Your task to perform on an android device: turn on data saver in the chrome app Image 0: 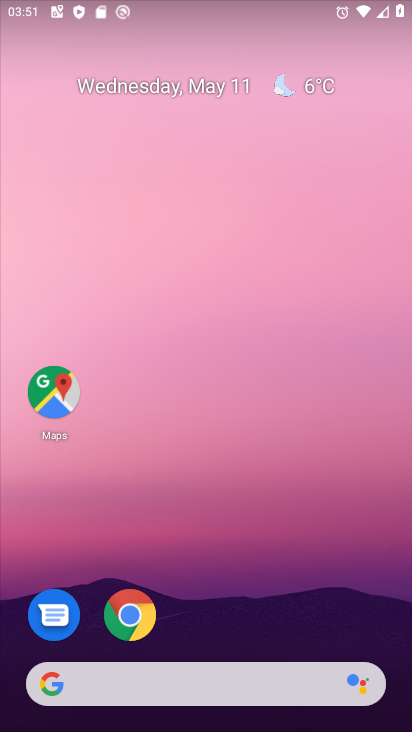
Step 0: click (122, 614)
Your task to perform on an android device: turn on data saver in the chrome app Image 1: 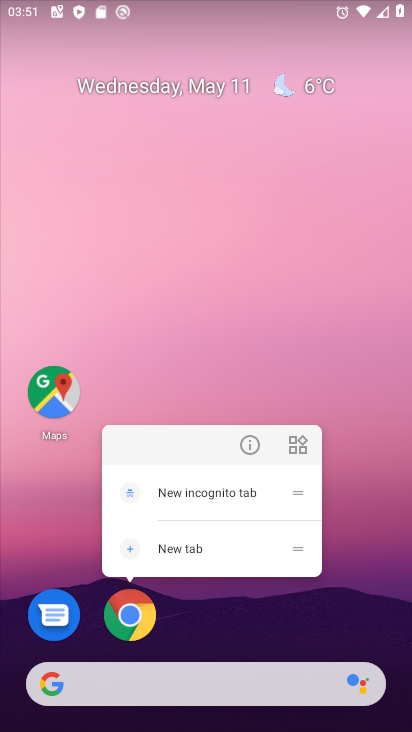
Step 1: click (134, 617)
Your task to perform on an android device: turn on data saver in the chrome app Image 2: 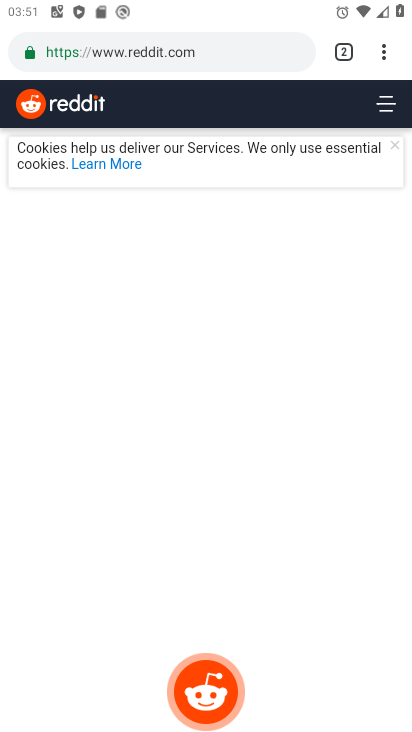
Step 2: drag from (387, 42) to (189, 627)
Your task to perform on an android device: turn on data saver in the chrome app Image 3: 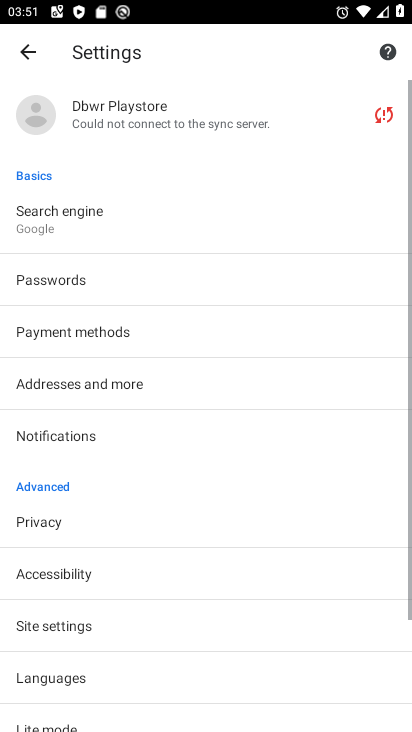
Step 3: drag from (101, 642) to (181, 245)
Your task to perform on an android device: turn on data saver in the chrome app Image 4: 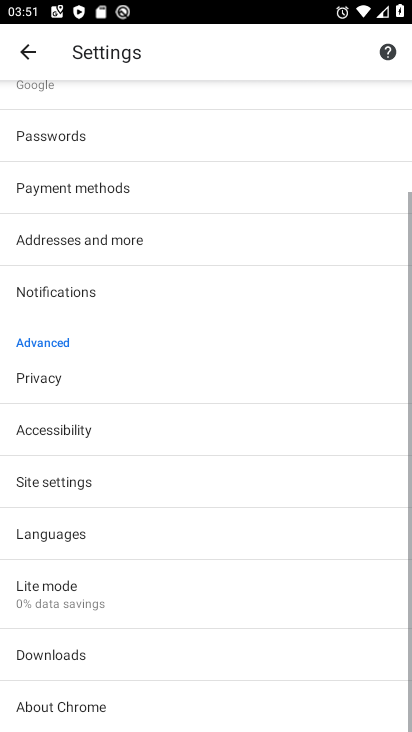
Step 4: click (74, 595)
Your task to perform on an android device: turn on data saver in the chrome app Image 5: 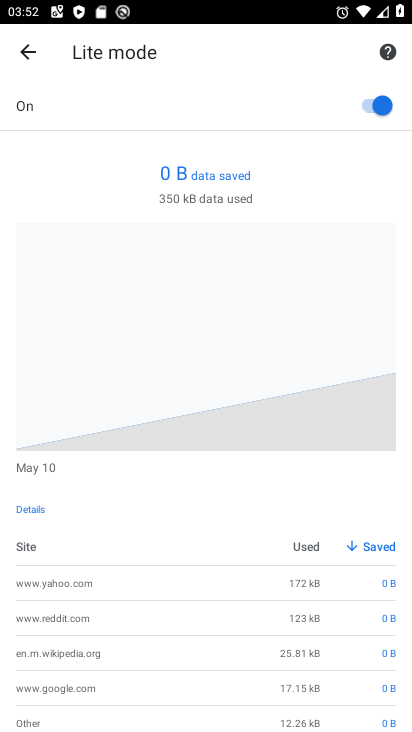
Step 5: task complete